Your task to perform on an android device: Open the Play Movies app and select the watchlist tab. Image 0: 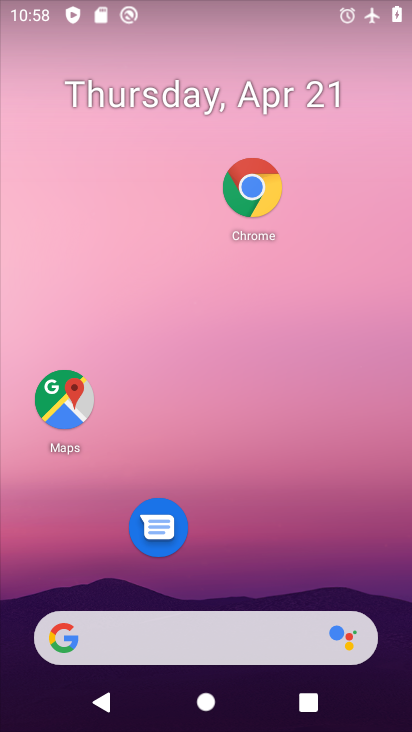
Step 0: drag from (271, 498) to (276, 178)
Your task to perform on an android device: Open the Play Movies app and select the watchlist tab. Image 1: 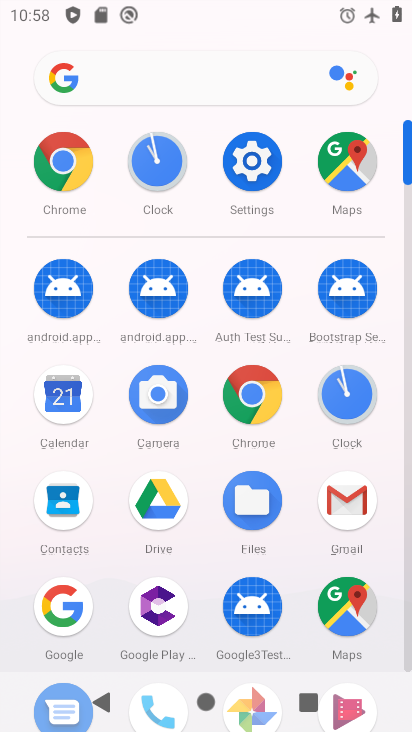
Step 1: drag from (329, 504) to (336, 287)
Your task to perform on an android device: Open the Play Movies app and select the watchlist tab. Image 2: 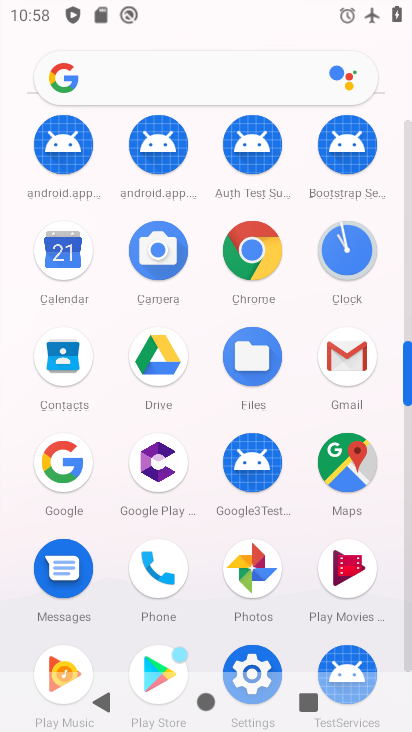
Step 2: click (357, 560)
Your task to perform on an android device: Open the Play Movies app and select the watchlist tab. Image 3: 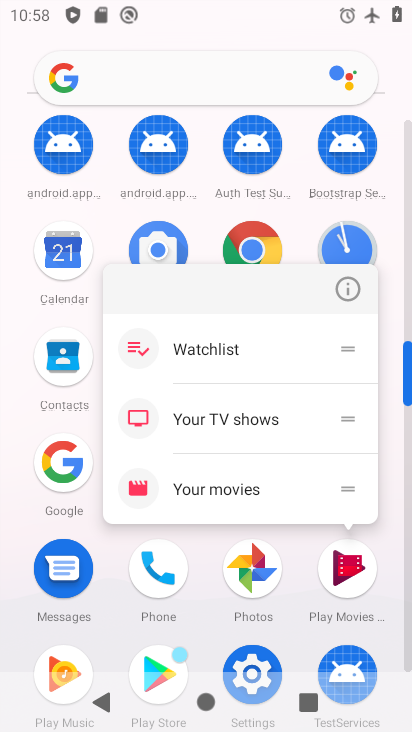
Step 3: click (364, 586)
Your task to perform on an android device: Open the Play Movies app and select the watchlist tab. Image 4: 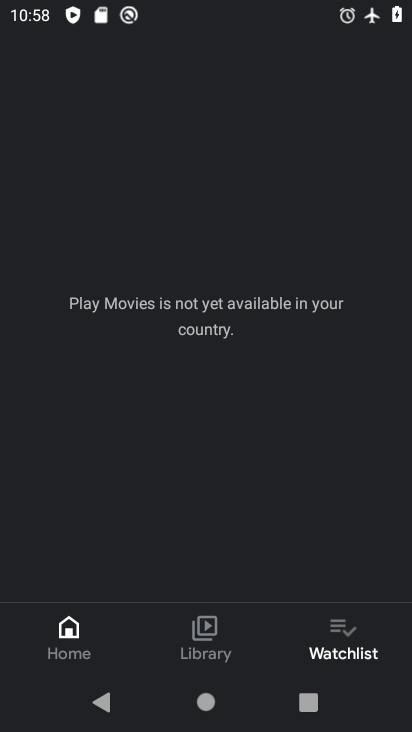
Step 4: click (347, 632)
Your task to perform on an android device: Open the Play Movies app and select the watchlist tab. Image 5: 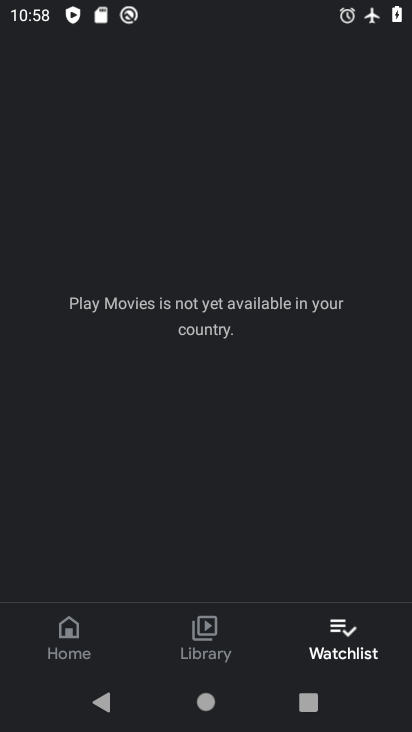
Step 5: click (347, 632)
Your task to perform on an android device: Open the Play Movies app and select the watchlist tab. Image 6: 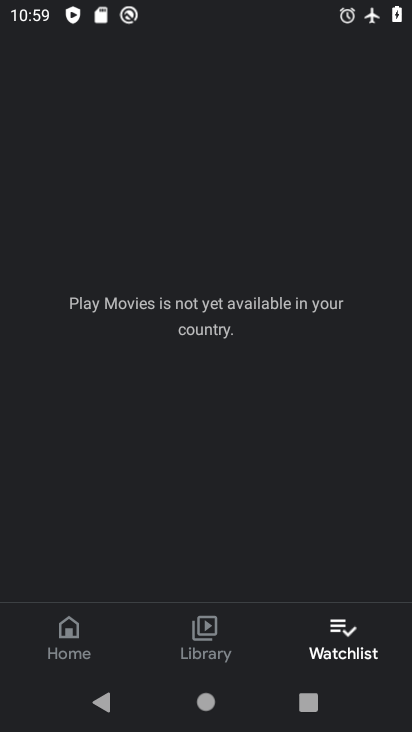
Step 6: task complete